Your task to perform on an android device: Open accessibility settings Image 0: 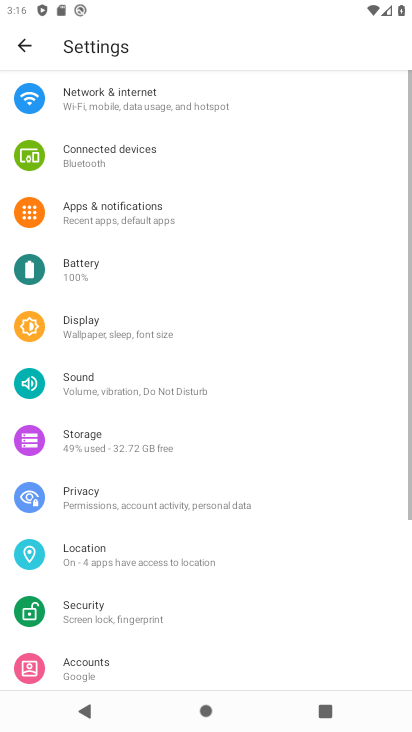
Step 0: drag from (229, 544) to (273, 333)
Your task to perform on an android device: Open accessibility settings Image 1: 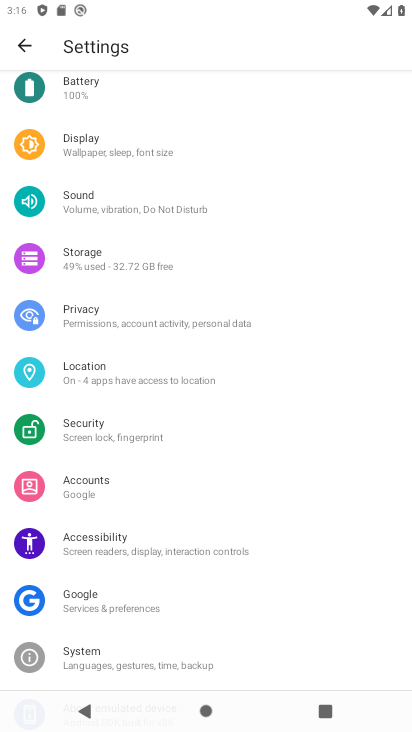
Step 1: click (114, 546)
Your task to perform on an android device: Open accessibility settings Image 2: 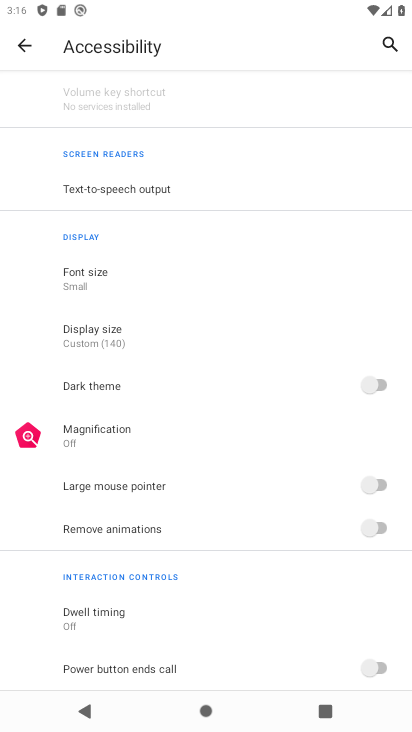
Step 2: task complete